Your task to perform on an android device: Go to battery settings Image 0: 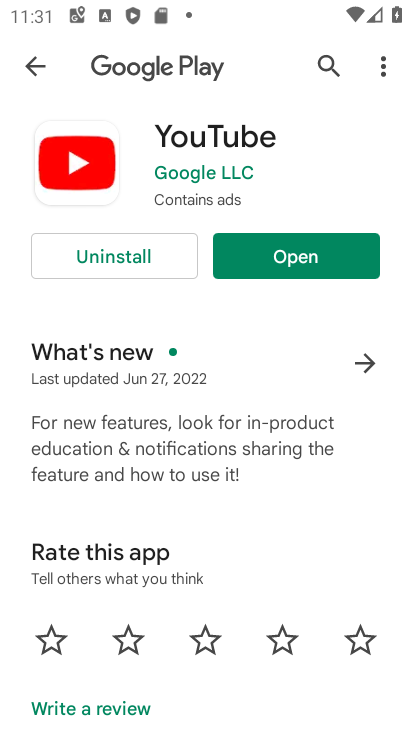
Step 0: press home button
Your task to perform on an android device: Go to battery settings Image 1: 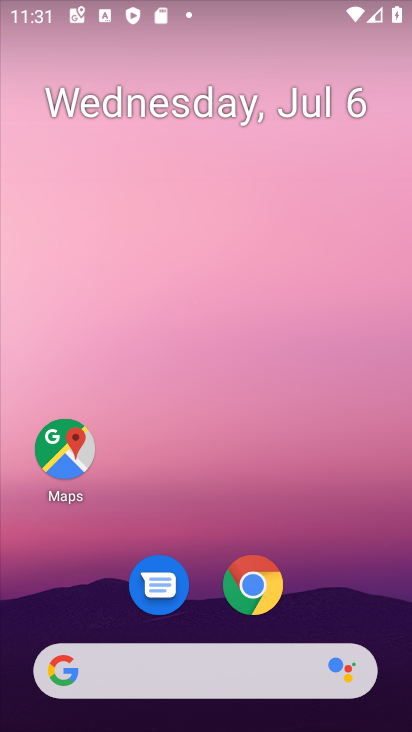
Step 1: drag from (195, 497) to (219, 0)
Your task to perform on an android device: Go to battery settings Image 2: 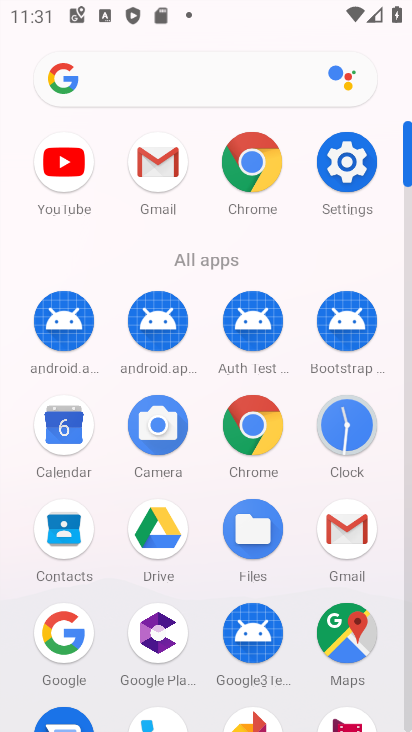
Step 2: click (357, 170)
Your task to perform on an android device: Go to battery settings Image 3: 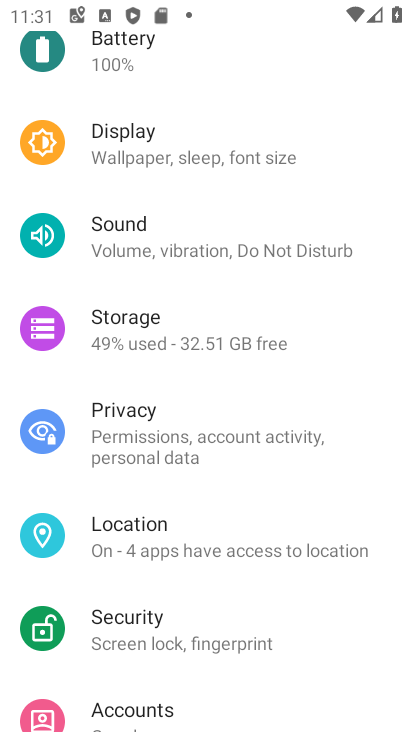
Step 3: drag from (183, 229) to (155, 476)
Your task to perform on an android device: Go to battery settings Image 4: 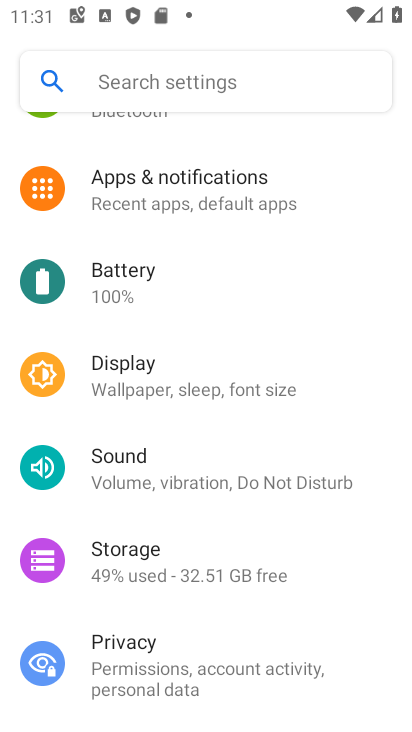
Step 4: click (165, 284)
Your task to perform on an android device: Go to battery settings Image 5: 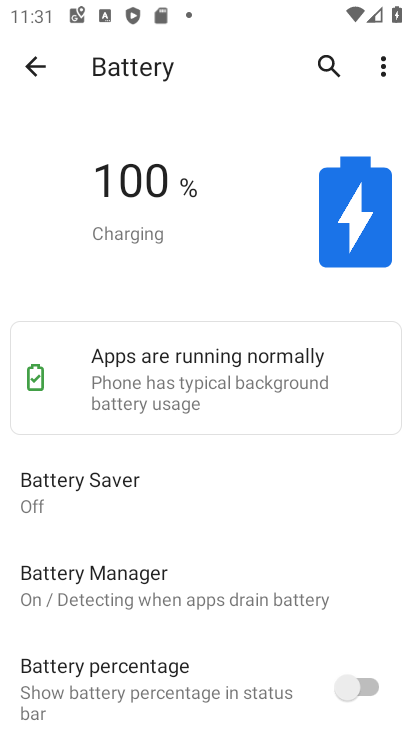
Step 5: task complete